Your task to perform on an android device: turn on wifi Image 0: 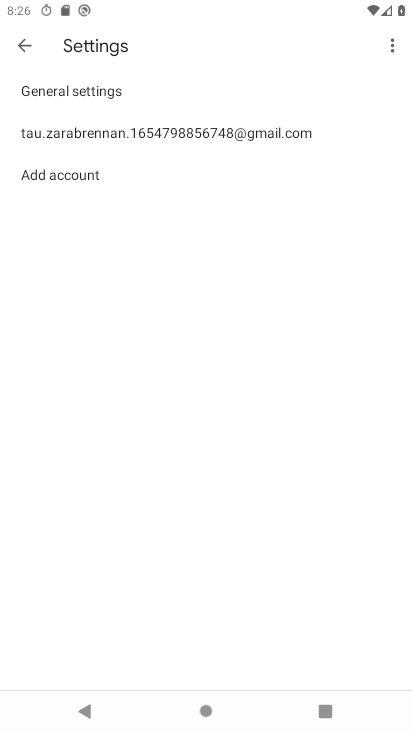
Step 0: press home button
Your task to perform on an android device: turn on wifi Image 1: 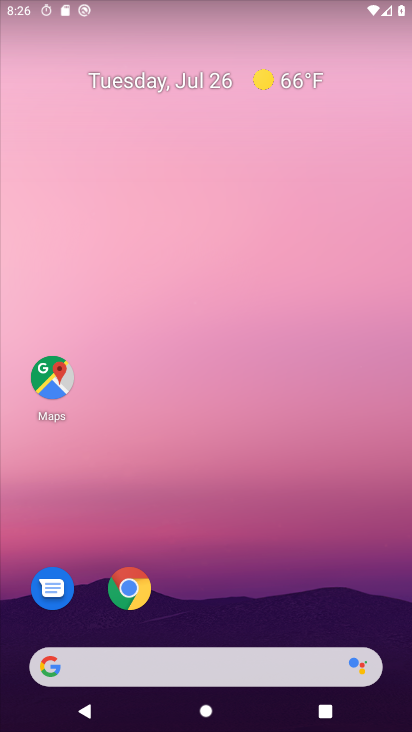
Step 1: drag from (224, 720) to (207, 198)
Your task to perform on an android device: turn on wifi Image 2: 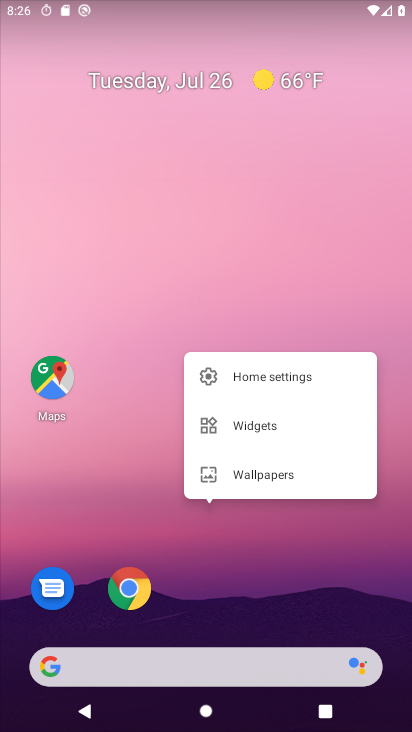
Step 2: click (337, 554)
Your task to perform on an android device: turn on wifi Image 3: 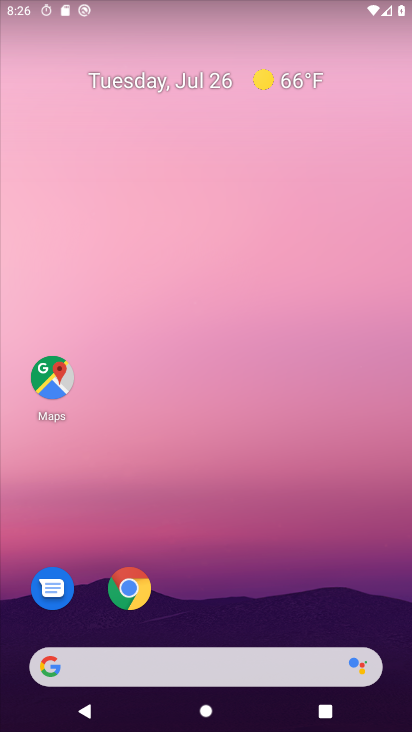
Step 3: drag from (231, 728) to (207, 131)
Your task to perform on an android device: turn on wifi Image 4: 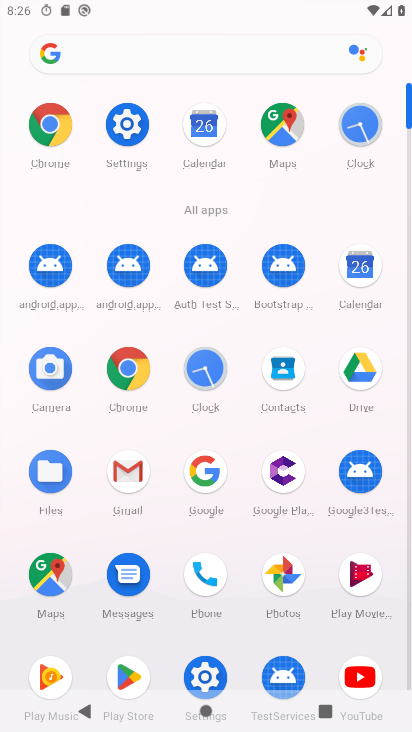
Step 4: click (138, 124)
Your task to perform on an android device: turn on wifi Image 5: 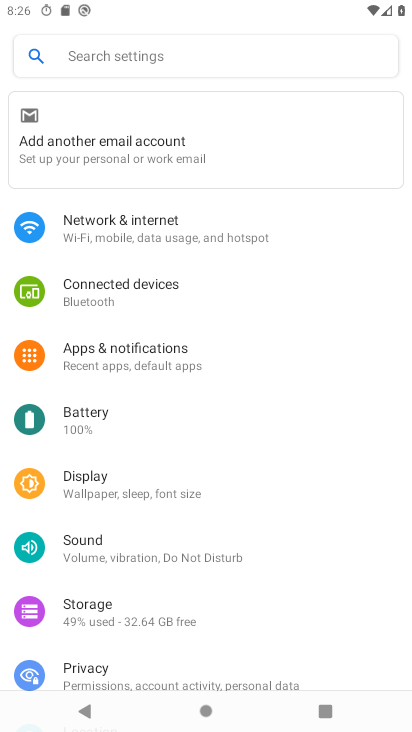
Step 5: click (91, 229)
Your task to perform on an android device: turn on wifi Image 6: 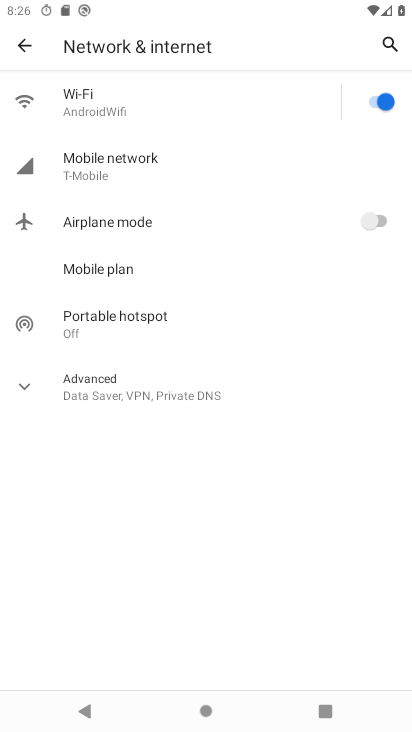
Step 6: task complete